Your task to perform on an android device: Go to notification settings Image 0: 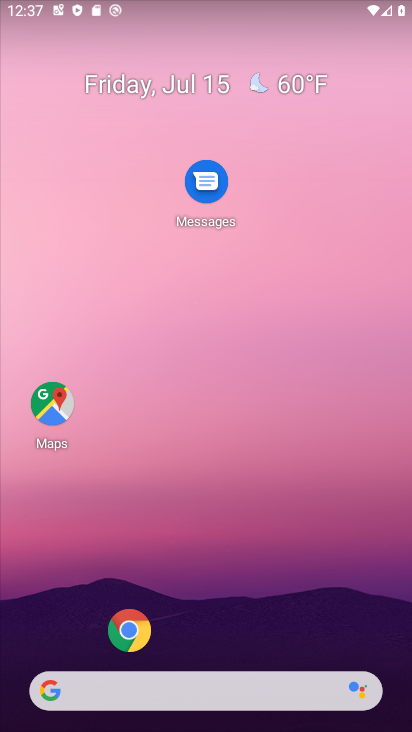
Step 0: drag from (194, 373) to (297, 174)
Your task to perform on an android device: Go to notification settings Image 1: 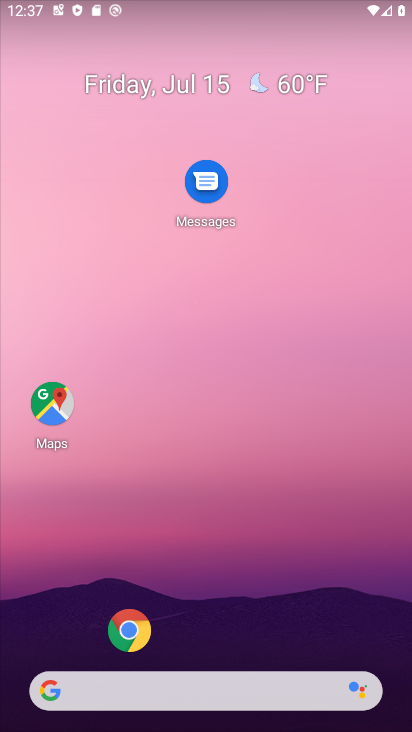
Step 1: drag from (94, 397) to (174, 135)
Your task to perform on an android device: Go to notification settings Image 2: 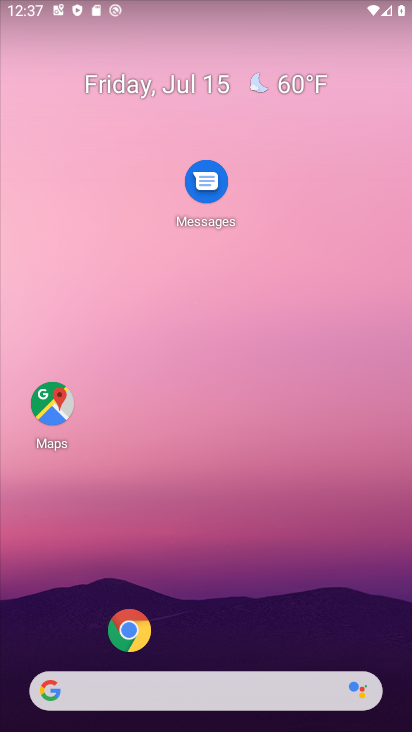
Step 2: drag from (145, 207) to (214, 20)
Your task to perform on an android device: Go to notification settings Image 3: 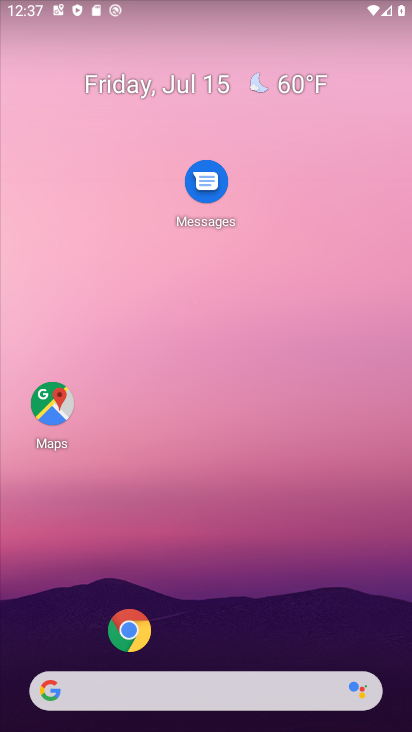
Step 3: drag from (1, 713) to (364, 31)
Your task to perform on an android device: Go to notification settings Image 4: 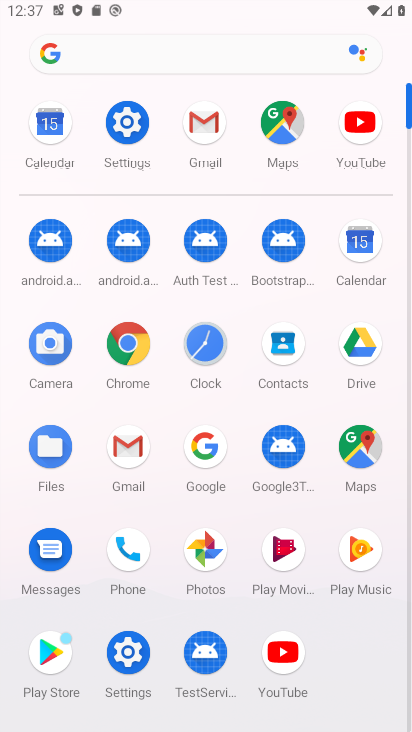
Step 4: click (141, 646)
Your task to perform on an android device: Go to notification settings Image 5: 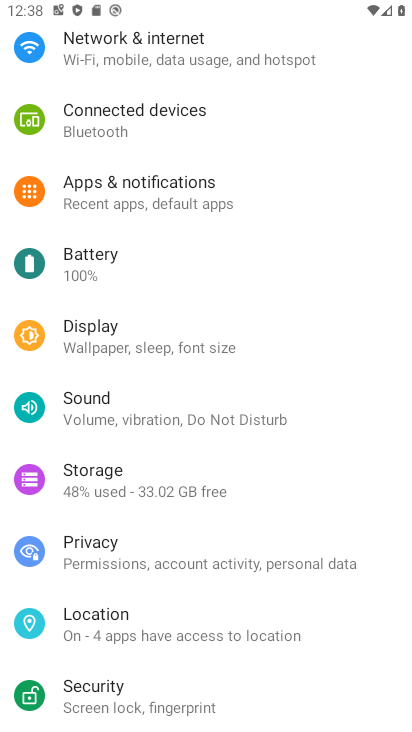
Step 5: click (138, 198)
Your task to perform on an android device: Go to notification settings Image 6: 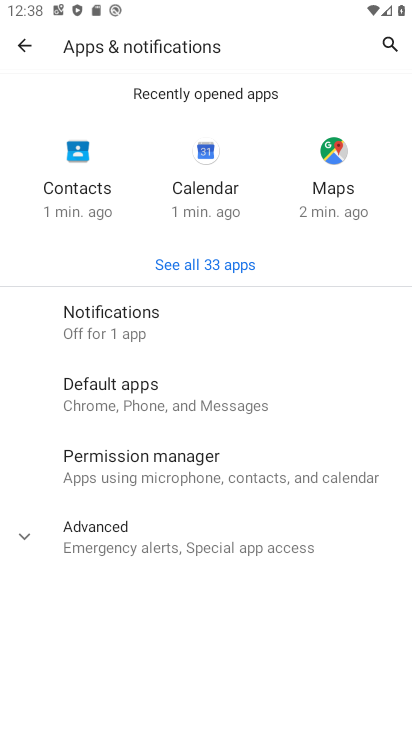
Step 6: task complete